Your task to perform on an android device: Is it going to rain tomorrow? Image 0: 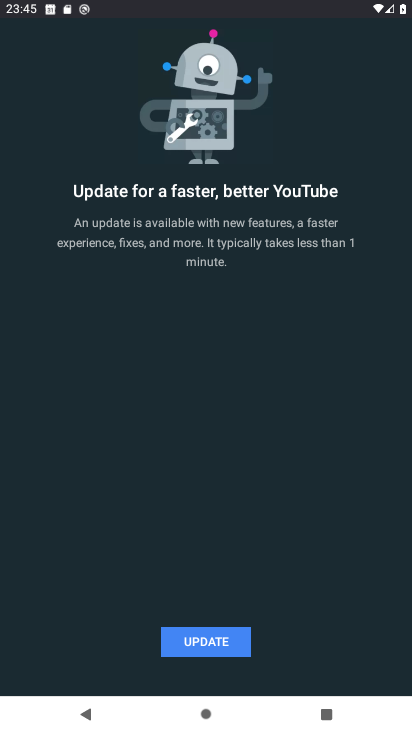
Step 0: press home button
Your task to perform on an android device: Is it going to rain tomorrow? Image 1: 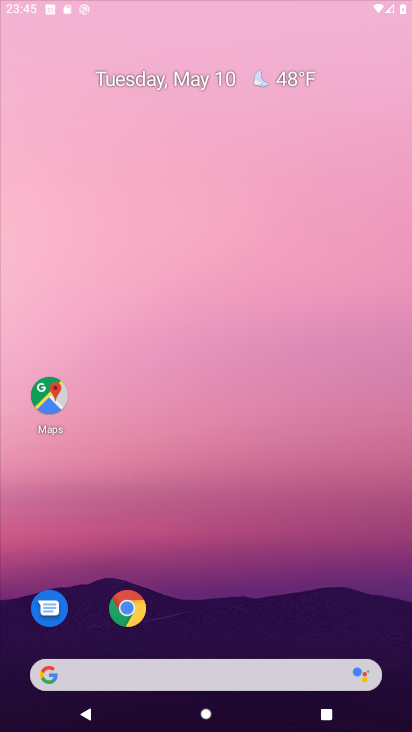
Step 1: press home button
Your task to perform on an android device: Is it going to rain tomorrow? Image 2: 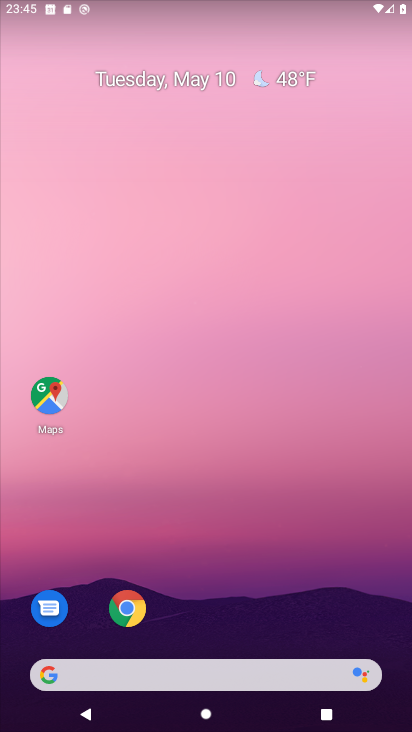
Step 2: click (136, 607)
Your task to perform on an android device: Is it going to rain tomorrow? Image 3: 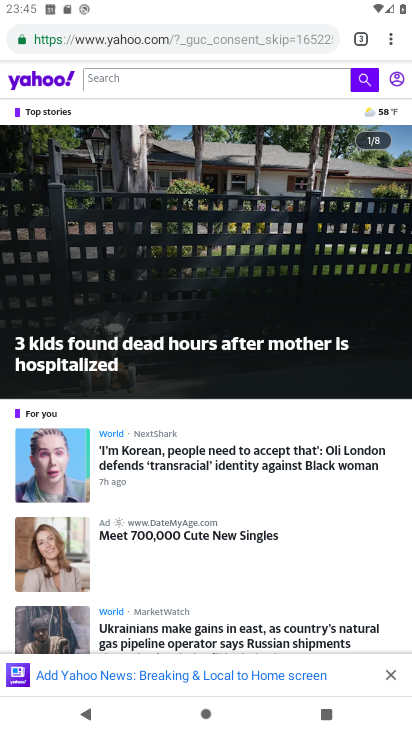
Step 3: click (363, 38)
Your task to perform on an android device: Is it going to rain tomorrow? Image 4: 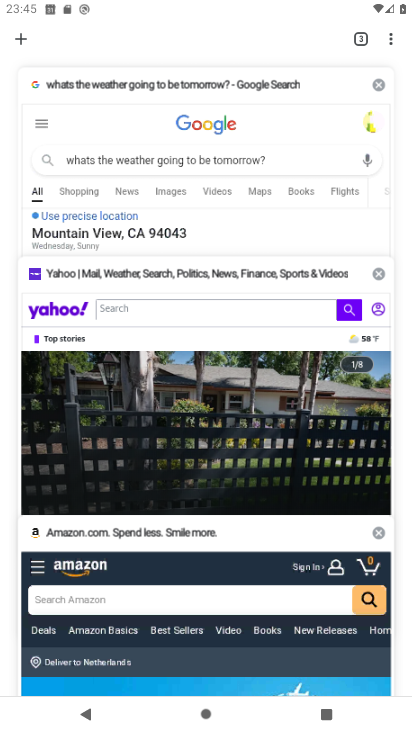
Step 4: click (20, 31)
Your task to perform on an android device: Is it going to rain tomorrow? Image 5: 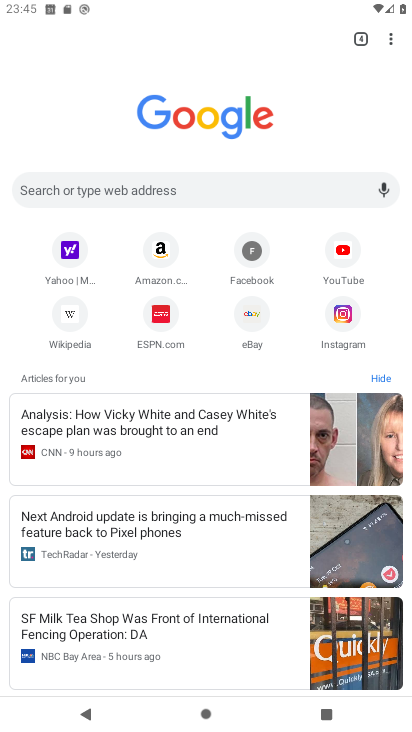
Step 5: click (95, 186)
Your task to perform on an android device: Is it going to rain tomorrow? Image 6: 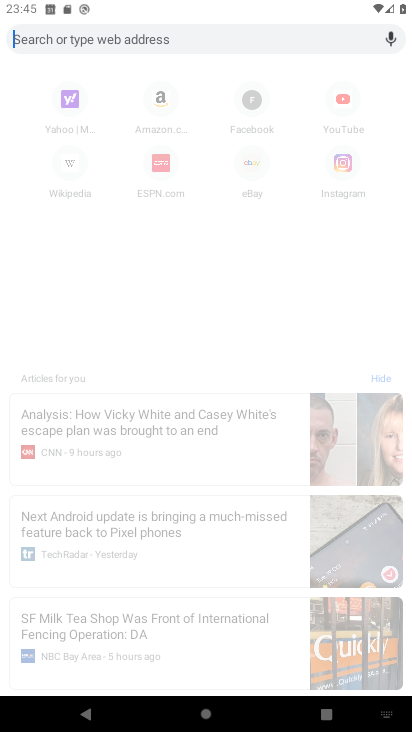
Step 6: type "is it going to rain tomorrow?"
Your task to perform on an android device: Is it going to rain tomorrow? Image 7: 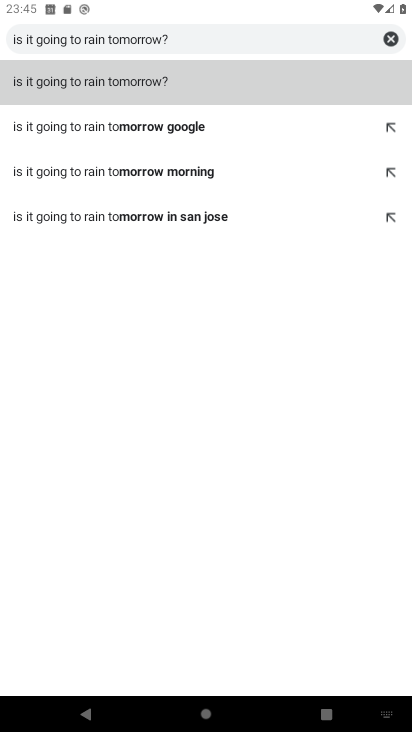
Step 7: click (159, 78)
Your task to perform on an android device: Is it going to rain tomorrow? Image 8: 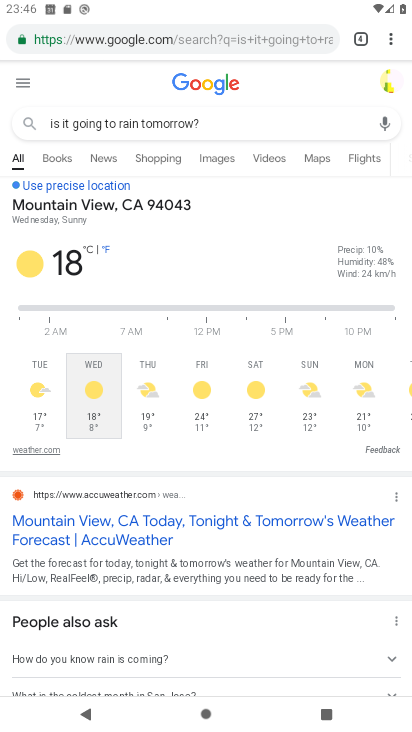
Step 8: task complete